Your task to perform on an android device: manage bookmarks in the chrome app Image 0: 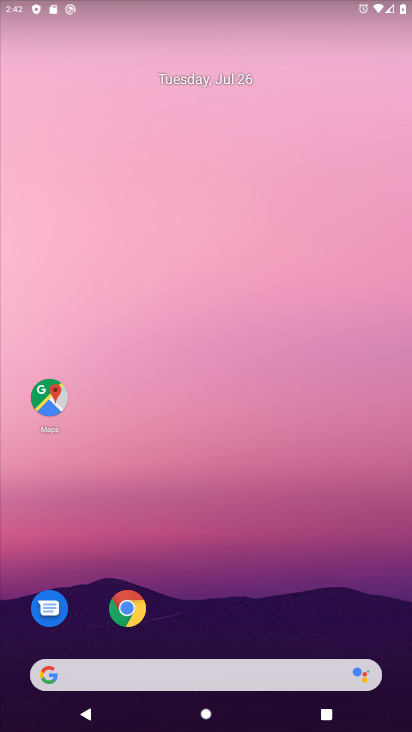
Step 0: click (126, 594)
Your task to perform on an android device: manage bookmarks in the chrome app Image 1: 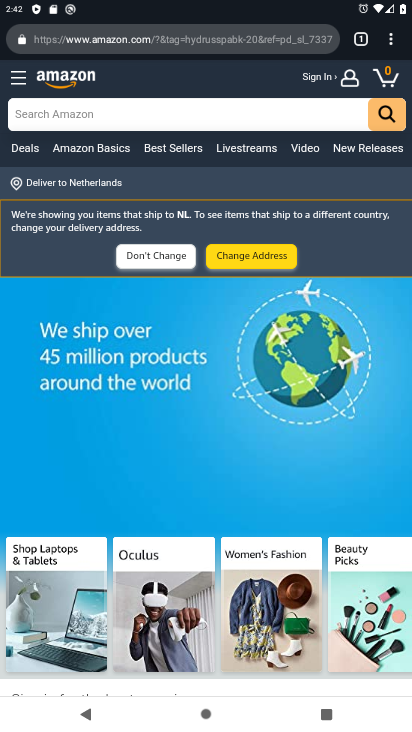
Step 1: click (389, 38)
Your task to perform on an android device: manage bookmarks in the chrome app Image 2: 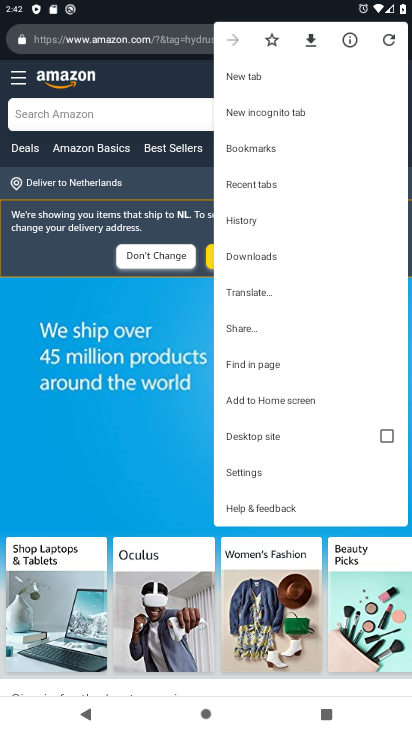
Step 2: click (274, 142)
Your task to perform on an android device: manage bookmarks in the chrome app Image 3: 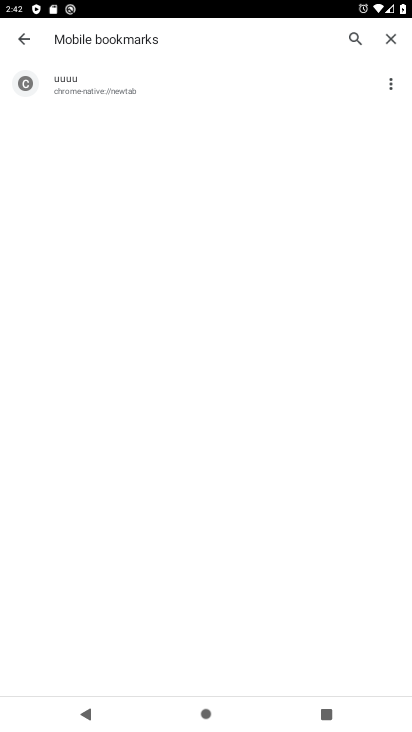
Step 3: click (392, 81)
Your task to perform on an android device: manage bookmarks in the chrome app Image 4: 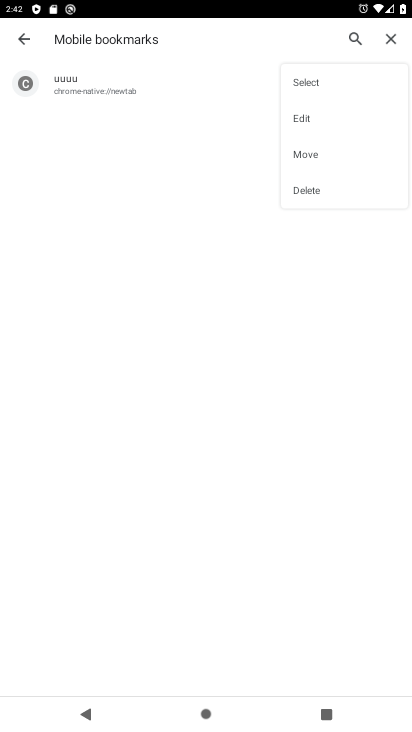
Step 4: click (320, 195)
Your task to perform on an android device: manage bookmarks in the chrome app Image 5: 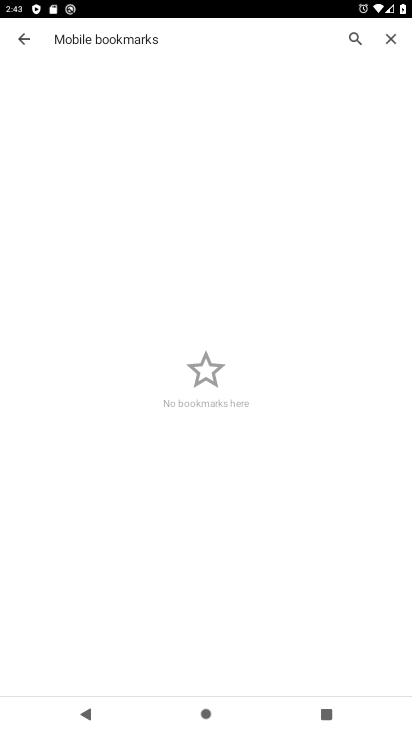
Step 5: task complete